Your task to perform on an android device: View the shopping cart on walmart.com. Add rayovac triple a to the cart on walmart.com Image 0: 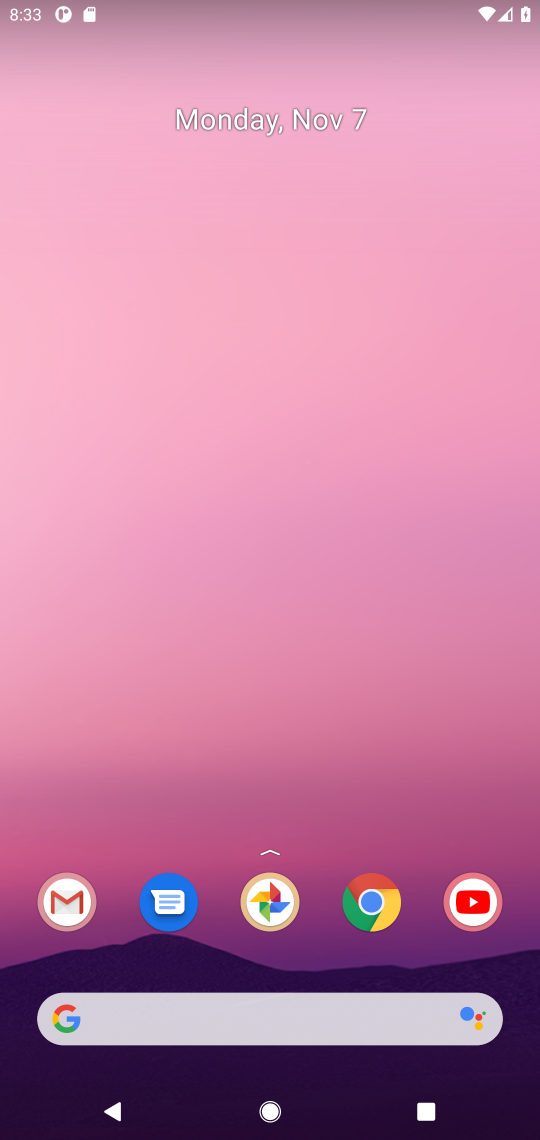
Step 0: click (366, 898)
Your task to perform on an android device: View the shopping cart on walmart.com. Add rayovac triple a to the cart on walmart.com Image 1: 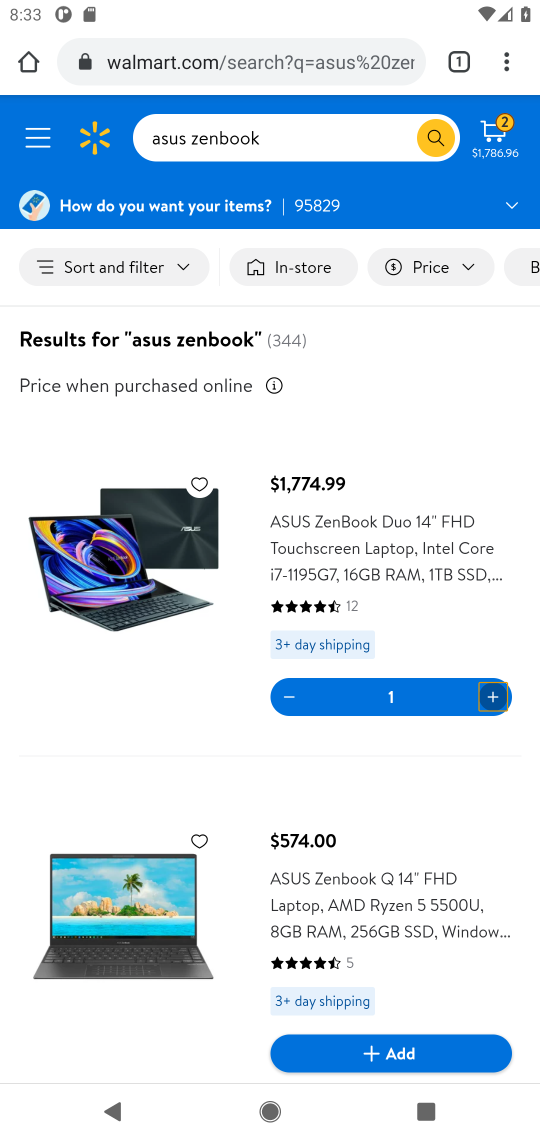
Step 1: click (221, 59)
Your task to perform on an android device: View the shopping cart on walmart.com. Add rayovac triple a to the cart on walmart.com Image 2: 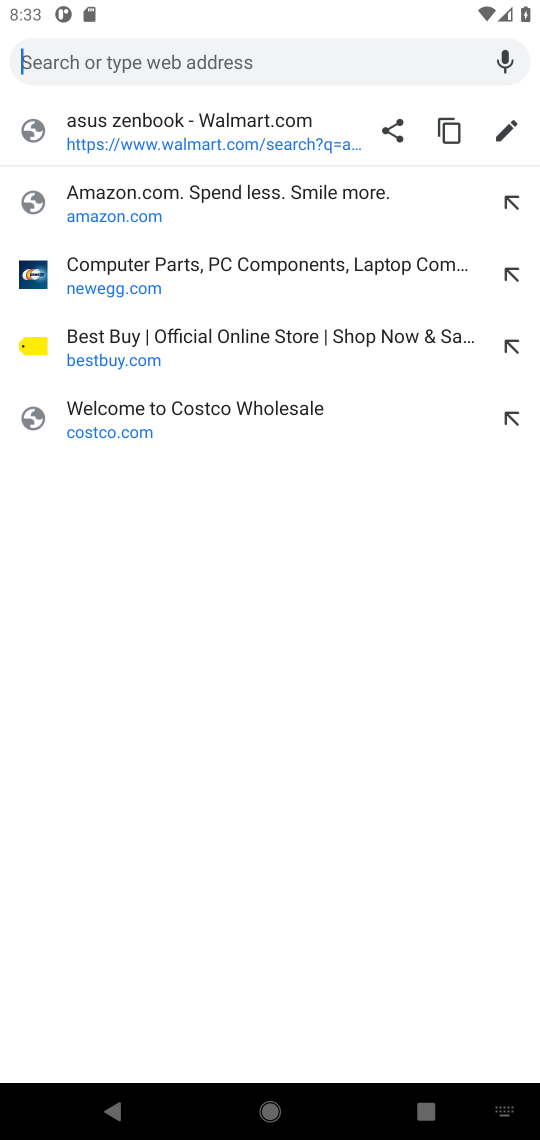
Step 2: type "walmart.com"
Your task to perform on an android device: View the shopping cart on walmart.com. Add rayovac triple a to the cart on walmart.com Image 3: 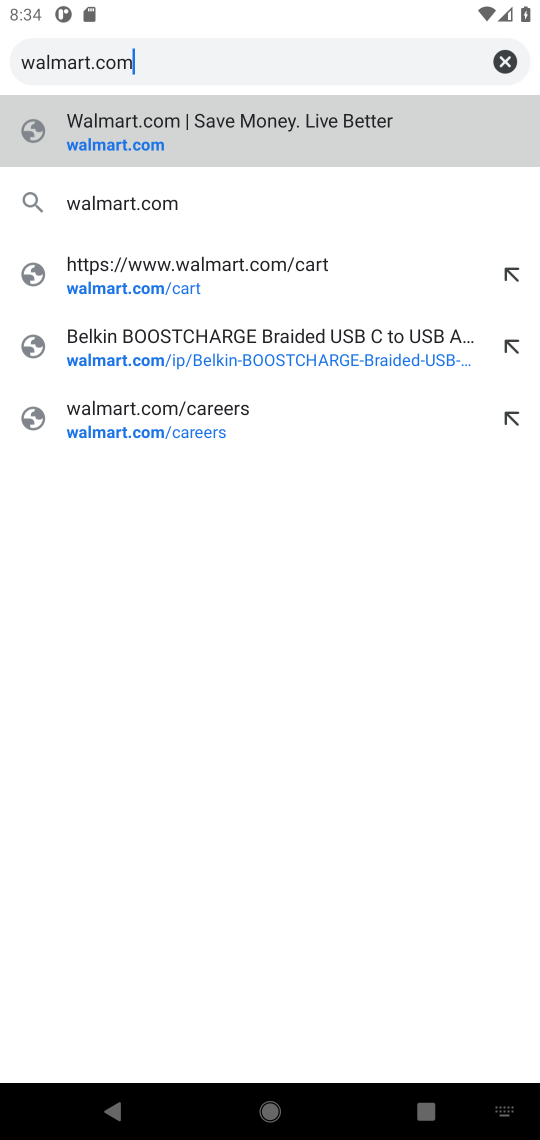
Step 3: click (101, 133)
Your task to perform on an android device: View the shopping cart on walmart.com. Add rayovac triple a to the cart on walmart.com Image 4: 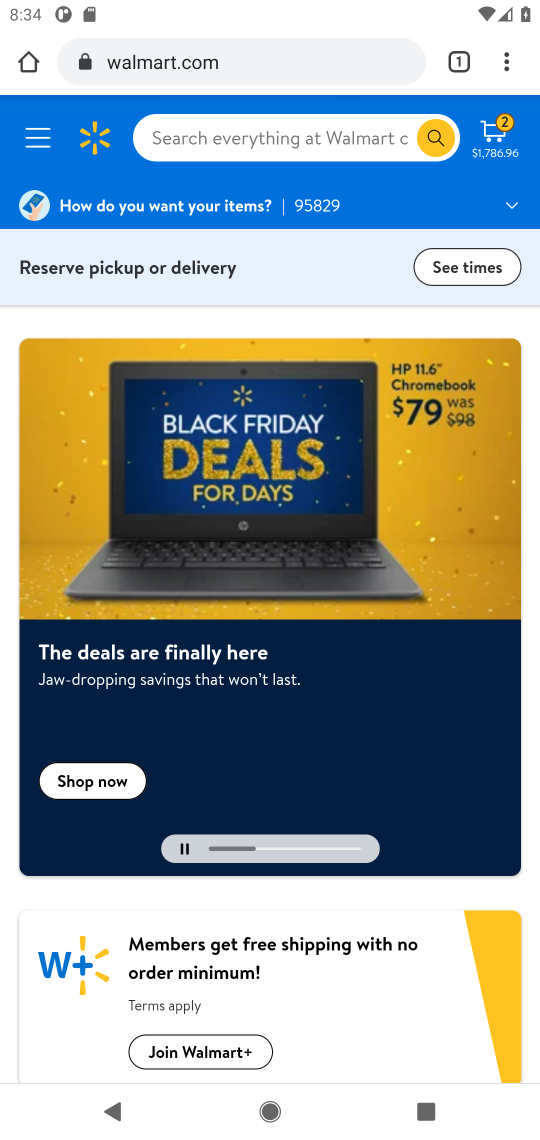
Step 4: click (485, 134)
Your task to perform on an android device: View the shopping cart on walmart.com. Add rayovac triple a to the cart on walmart.com Image 5: 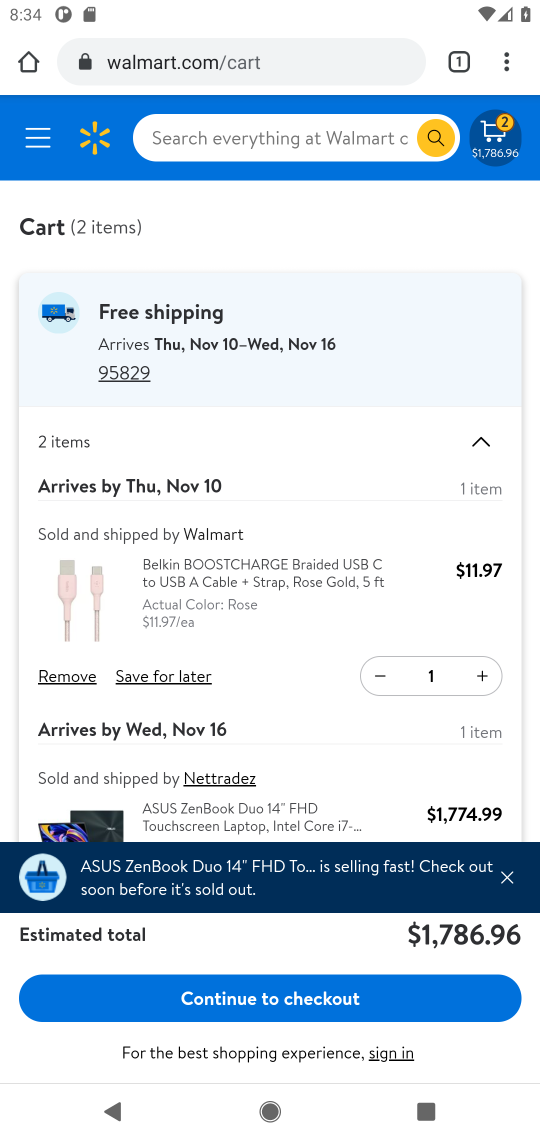
Step 5: click (312, 143)
Your task to perform on an android device: View the shopping cart on walmart.com. Add rayovac triple a to the cart on walmart.com Image 6: 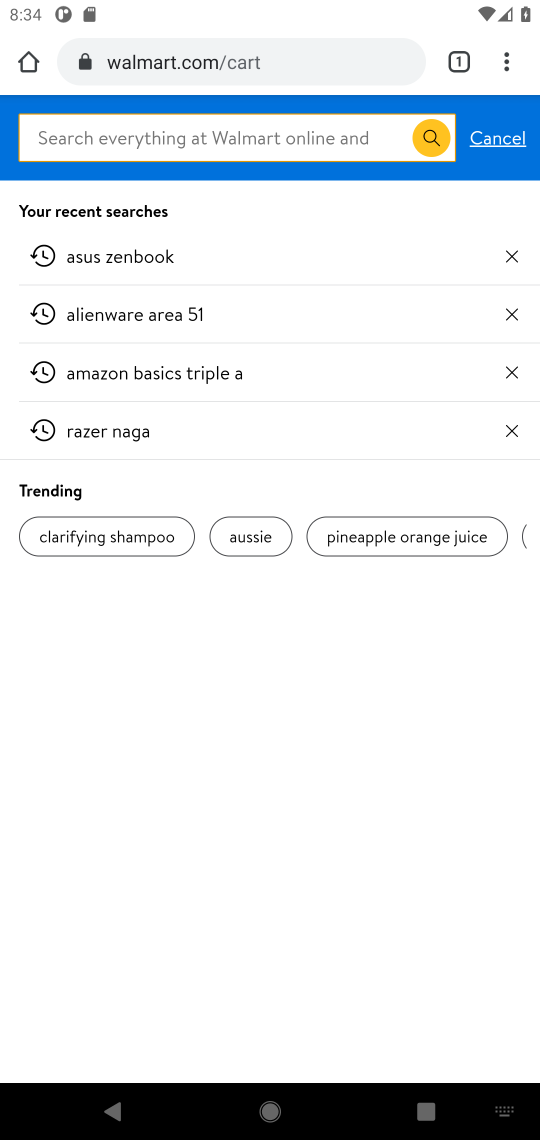
Step 6: type "rayovac triple a "
Your task to perform on an android device: View the shopping cart on walmart.com. Add rayovac triple a to the cart on walmart.com Image 7: 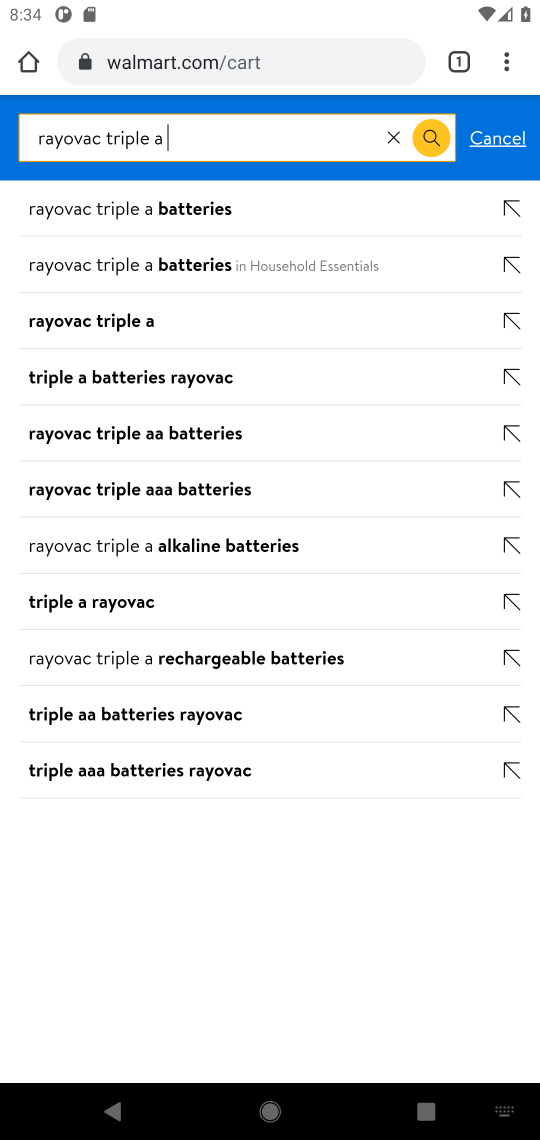
Step 7: click (94, 332)
Your task to perform on an android device: View the shopping cart on walmart.com. Add rayovac triple a to the cart on walmart.com Image 8: 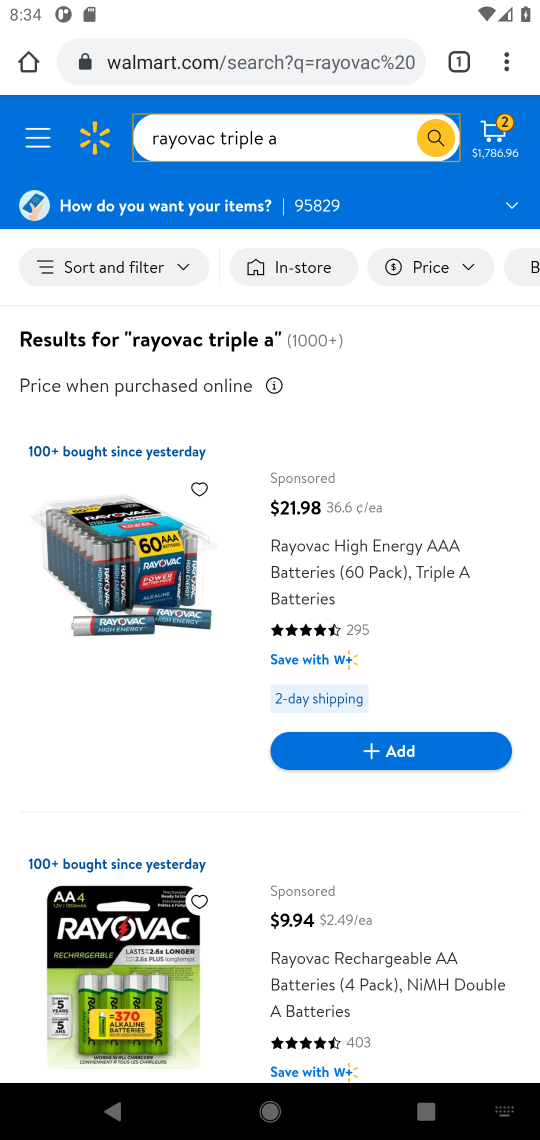
Step 8: click (403, 767)
Your task to perform on an android device: View the shopping cart on walmart.com. Add rayovac triple a to the cart on walmart.com Image 9: 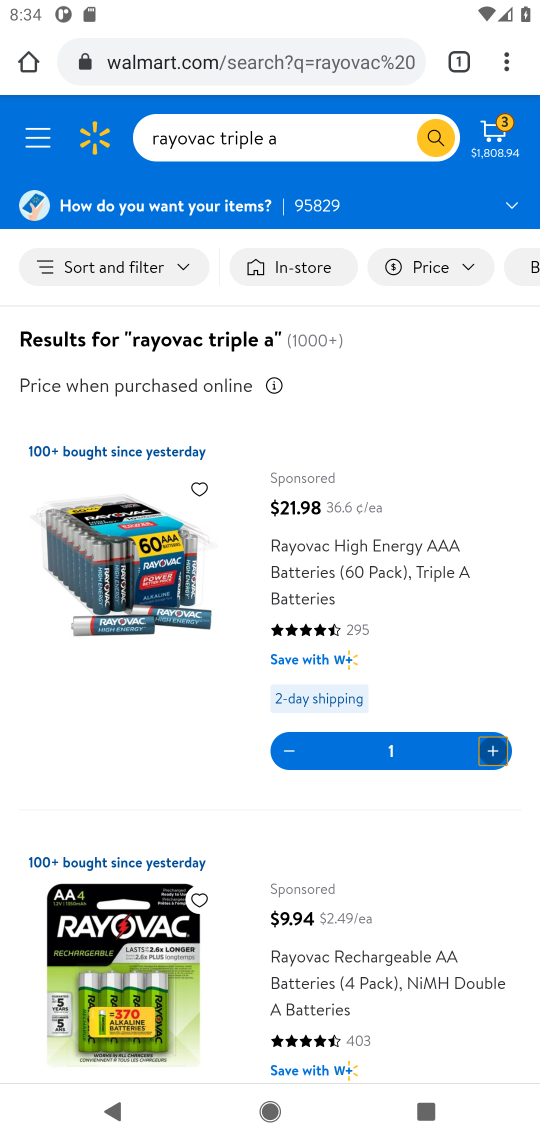
Step 9: task complete